Your task to perform on an android device: turn on the 24-hour format for clock Image 0: 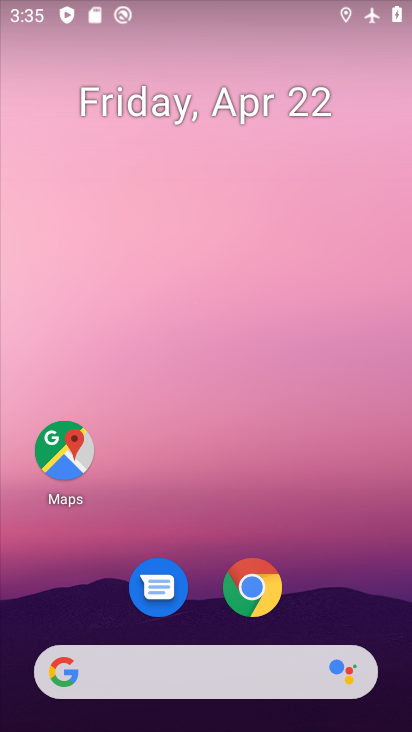
Step 0: drag from (197, 525) to (258, 0)
Your task to perform on an android device: turn on the 24-hour format for clock Image 1: 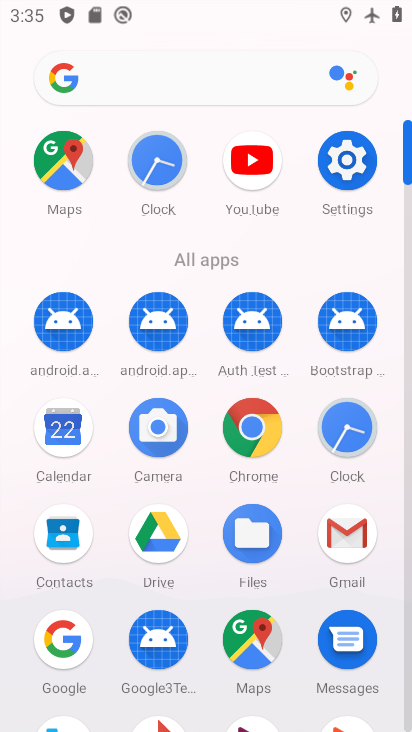
Step 1: click (348, 429)
Your task to perform on an android device: turn on the 24-hour format for clock Image 2: 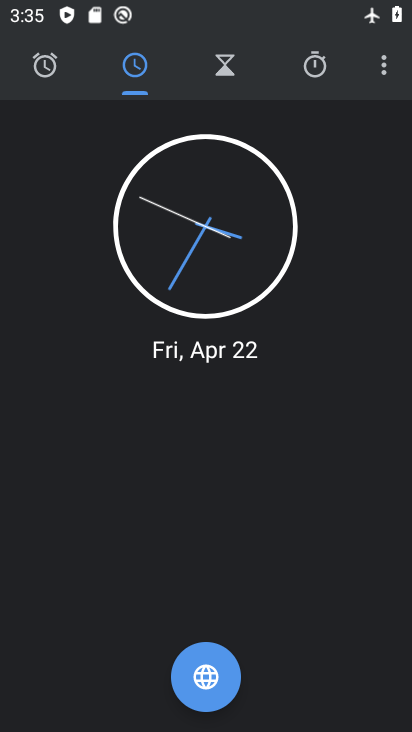
Step 2: click (384, 67)
Your task to perform on an android device: turn on the 24-hour format for clock Image 3: 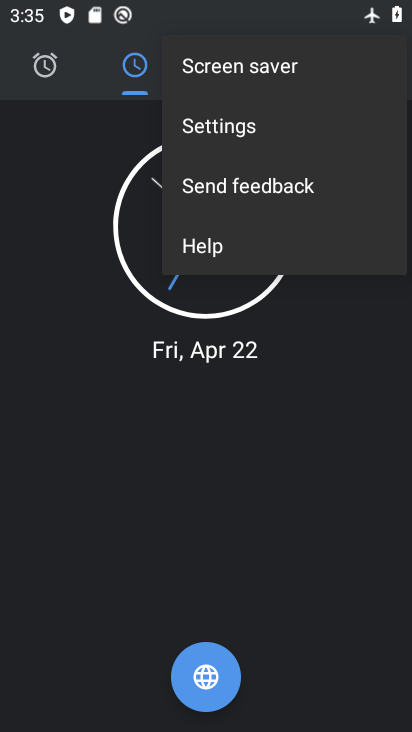
Step 3: click (271, 125)
Your task to perform on an android device: turn on the 24-hour format for clock Image 4: 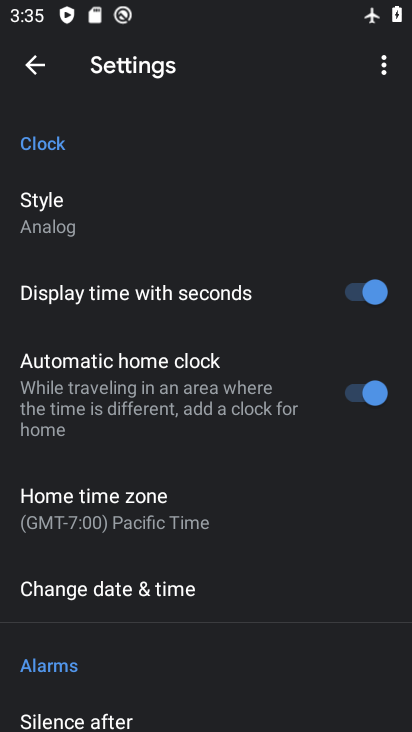
Step 4: drag from (250, 544) to (257, 312)
Your task to perform on an android device: turn on the 24-hour format for clock Image 5: 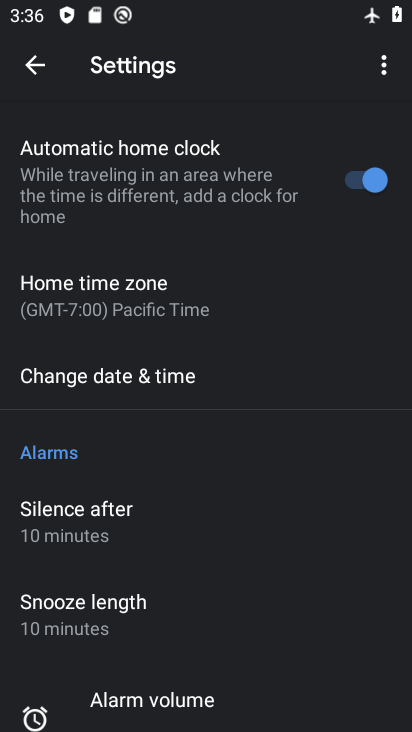
Step 5: drag from (215, 476) to (233, 357)
Your task to perform on an android device: turn on the 24-hour format for clock Image 6: 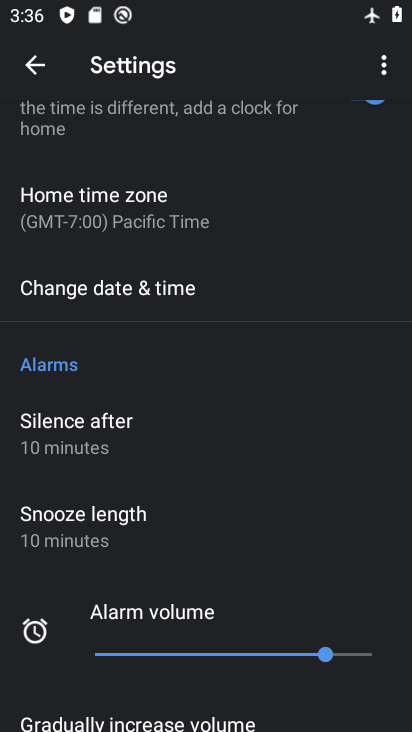
Step 6: click (186, 295)
Your task to perform on an android device: turn on the 24-hour format for clock Image 7: 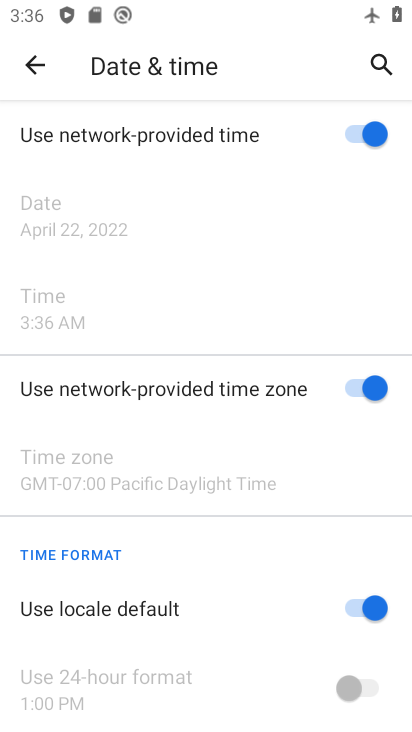
Step 7: drag from (217, 569) to (235, 427)
Your task to perform on an android device: turn on the 24-hour format for clock Image 8: 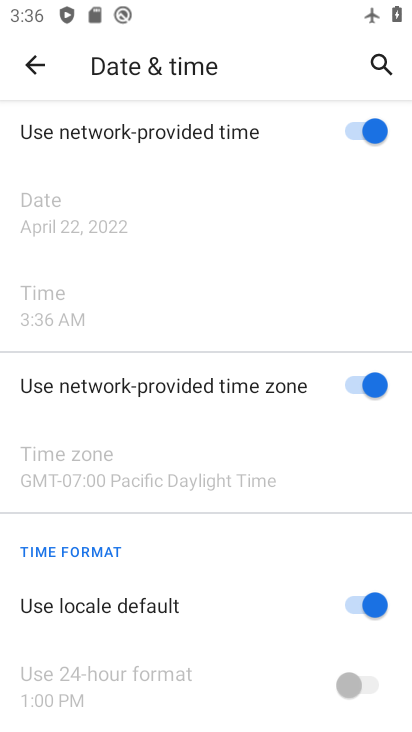
Step 8: click (372, 604)
Your task to perform on an android device: turn on the 24-hour format for clock Image 9: 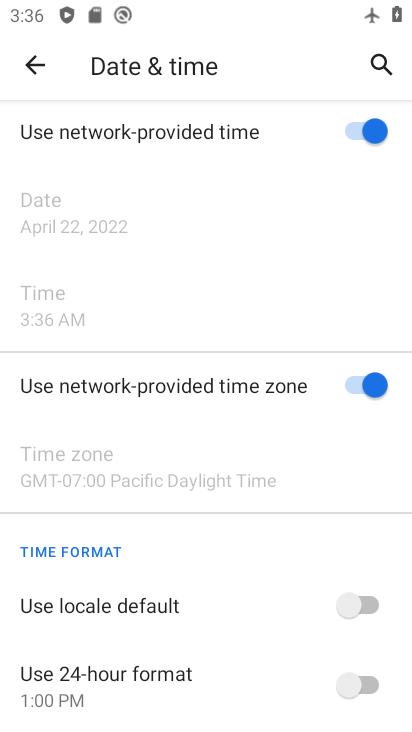
Step 9: click (350, 692)
Your task to perform on an android device: turn on the 24-hour format for clock Image 10: 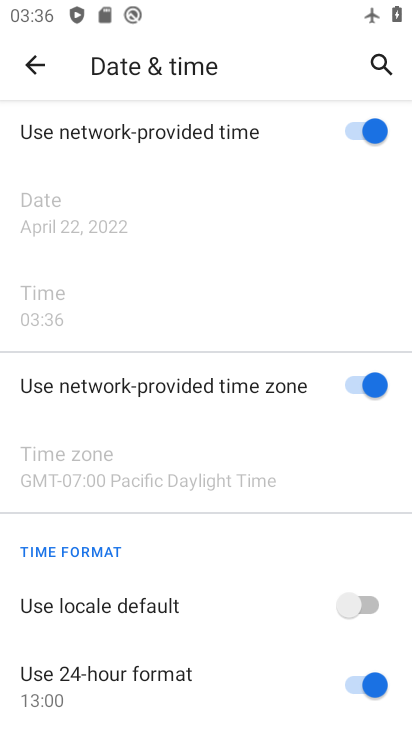
Step 10: task complete